Your task to perform on an android device: turn on improve location accuracy Image 0: 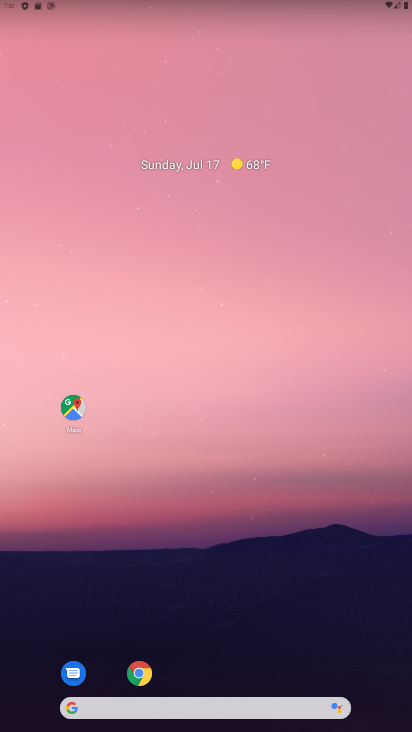
Step 0: drag from (210, 585) to (270, 0)
Your task to perform on an android device: turn on improve location accuracy Image 1: 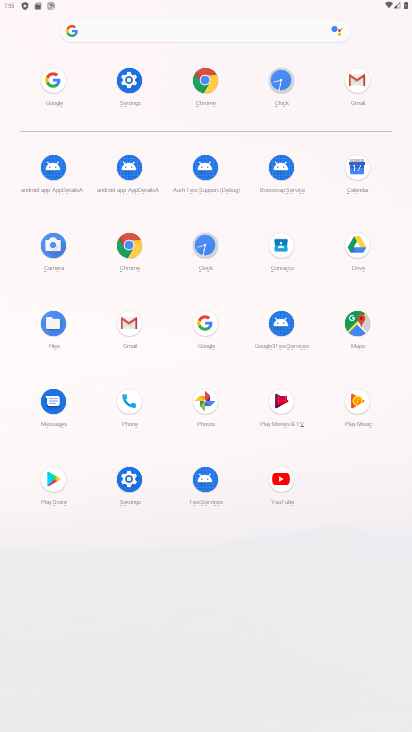
Step 1: click (130, 75)
Your task to perform on an android device: turn on improve location accuracy Image 2: 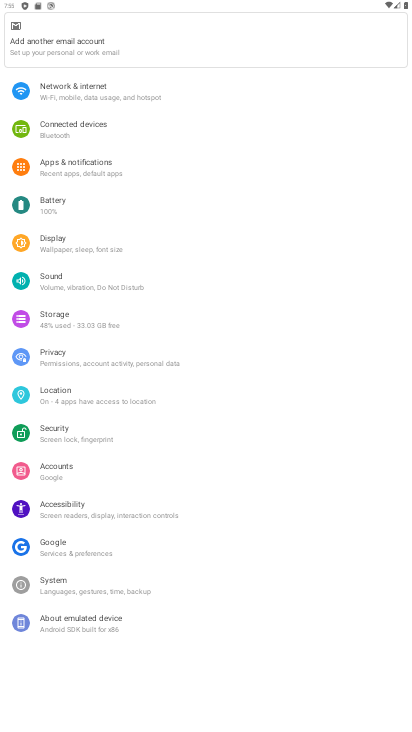
Step 2: click (94, 397)
Your task to perform on an android device: turn on improve location accuracy Image 3: 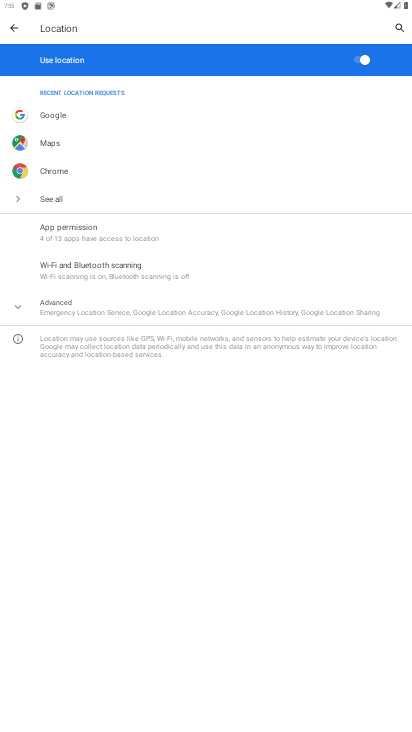
Step 3: click (55, 302)
Your task to perform on an android device: turn on improve location accuracy Image 4: 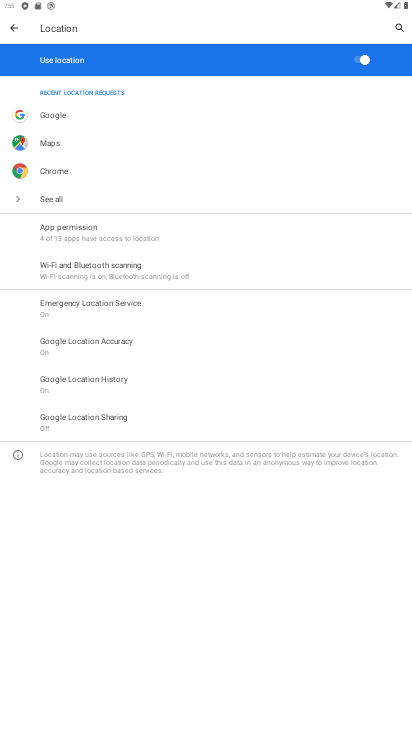
Step 4: click (105, 347)
Your task to perform on an android device: turn on improve location accuracy Image 5: 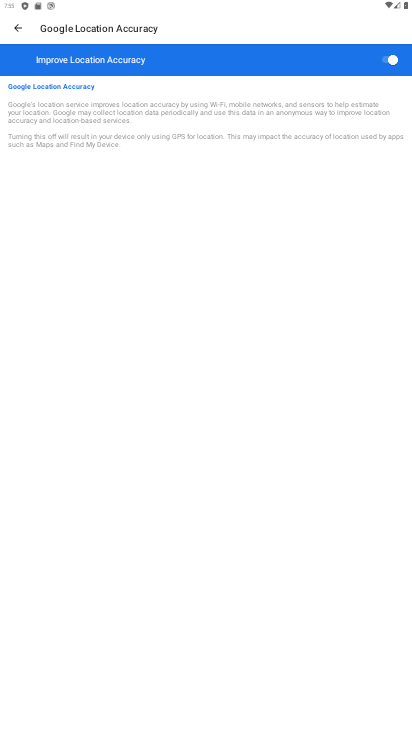
Step 5: task complete